Your task to perform on an android device: Go to Maps Image 0: 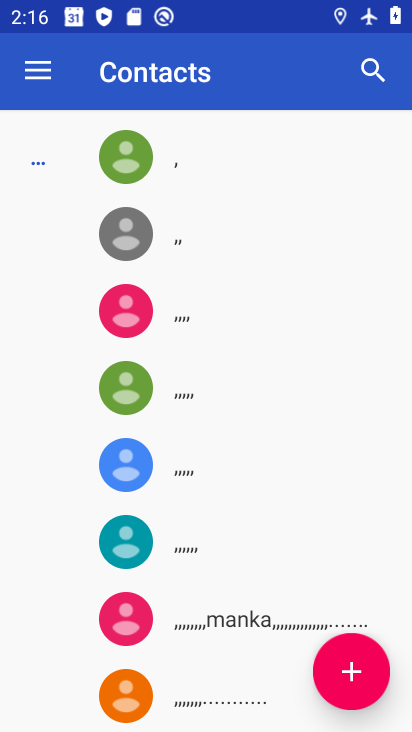
Step 0: press home button
Your task to perform on an android device: Go to Maps Image 1: 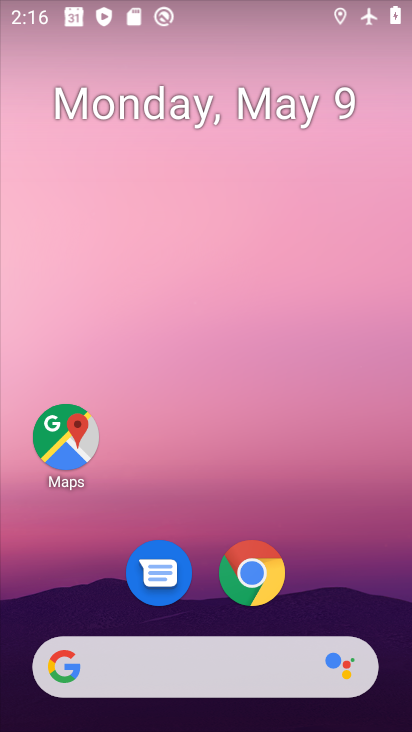
Step 1: drag from (369, 611) to (238, 47)
Your task to perform on an android device: Go to Maps Image 2: 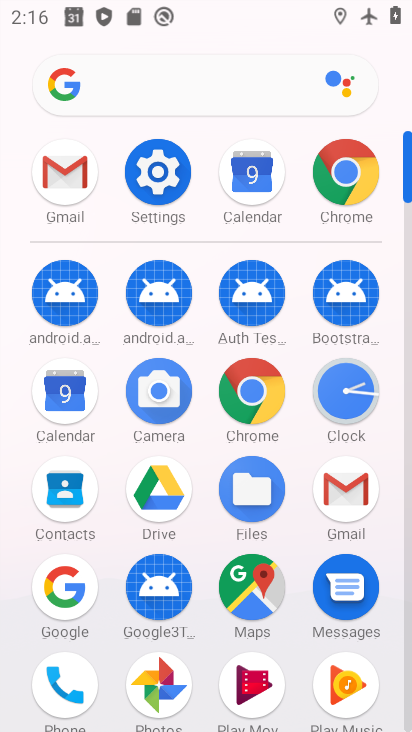
Step 2: click (248, 568)
Your task to perform on an android device: Go to Maps Image 3: 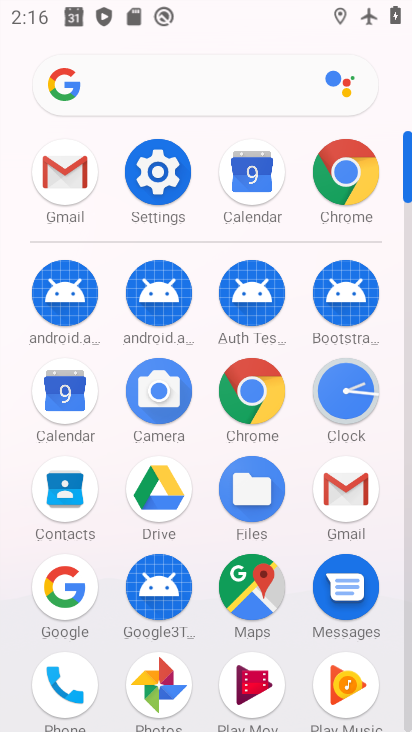
Step 3: click (249, 574)
Your task to perform on an android device: Go to Maps Image 4: 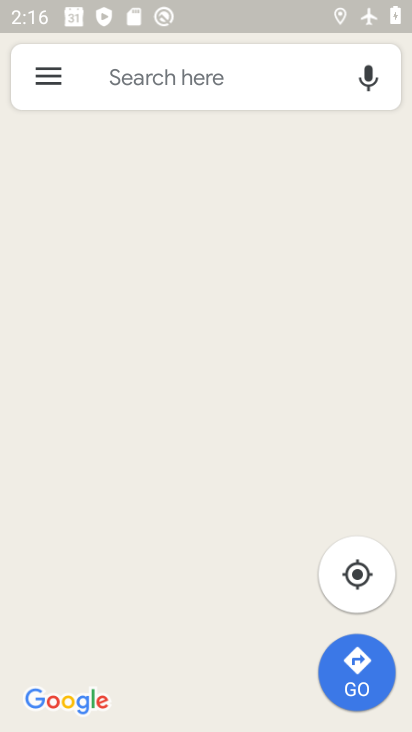
Step 4: task complete